Your task to perform on an android device: Open location settings Image 0: 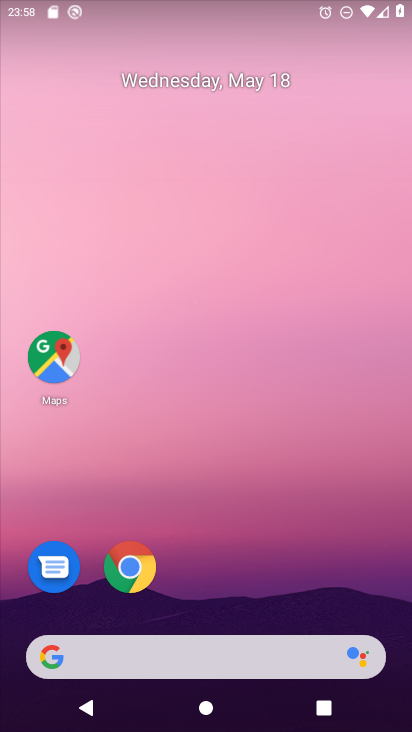
Step 0: drag from (254, 674) to (274, 152)
Your task to perform on an android device: Open location settings Image 1: 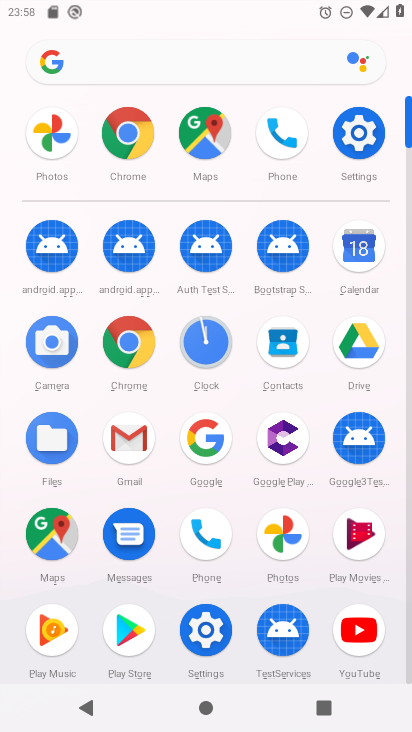
Step 1: click (369, 142)
Your task to perform on an android device: Open location settings Image 2: 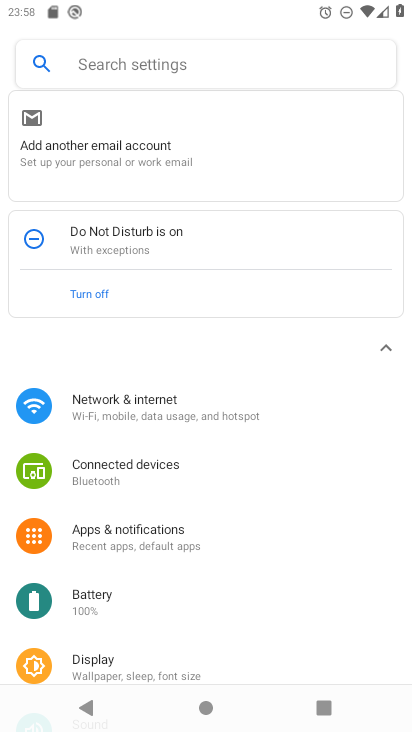
Step 2: click (168, 46)
Your task to perform on an android device: Open location settings Image 3: 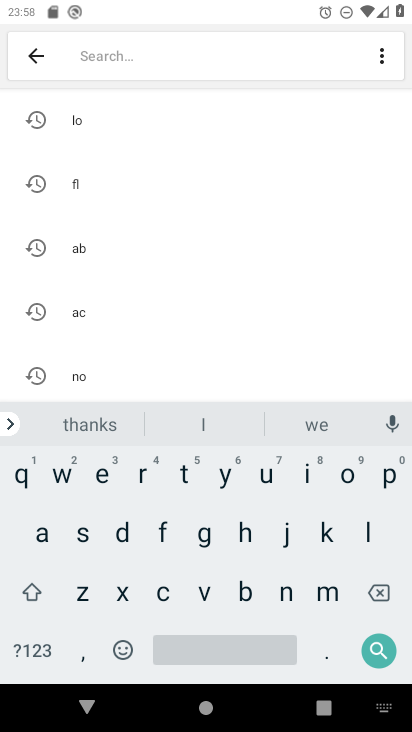
Step 3: click (369, 534)
Your task to perform on an android device: Open location settings Image 4: 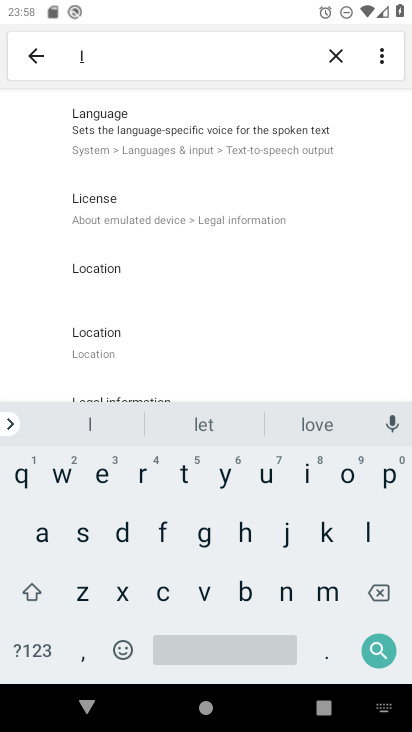
Step 4: click (83, 341)
Your task to perform on an android device: Open location settings Image 5: 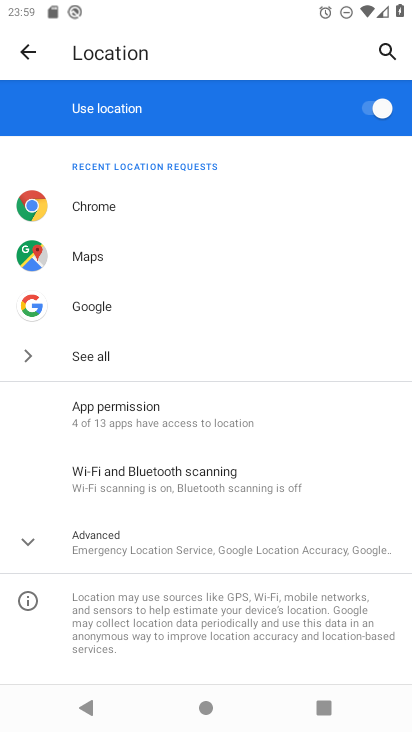
Step 5: click (24, 549)
Your task to perform on an android device: Open location settings Image 6: 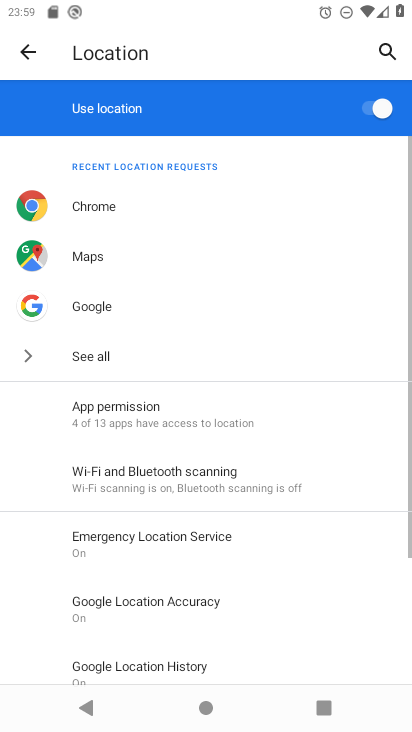
Step 6: task complete